Your task to perform on an android device: Open the calendar and show me this week's events Image 0: 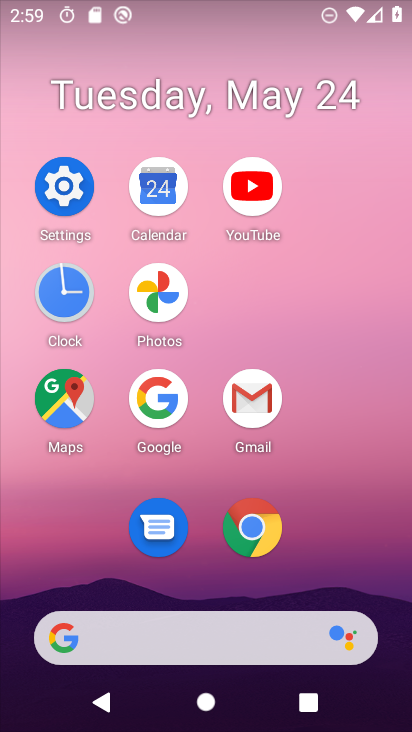
Step 0: click (158, 198)
Your task to perform on an android device: Open the calendar and show me this week's events Image 1: 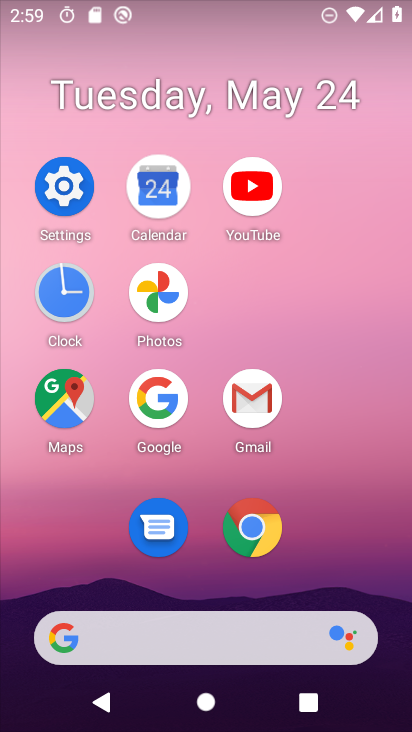
Step 1: click (157, 187)
Your task to perform on an android device: Open the calendar and show me this week's events Image 2: 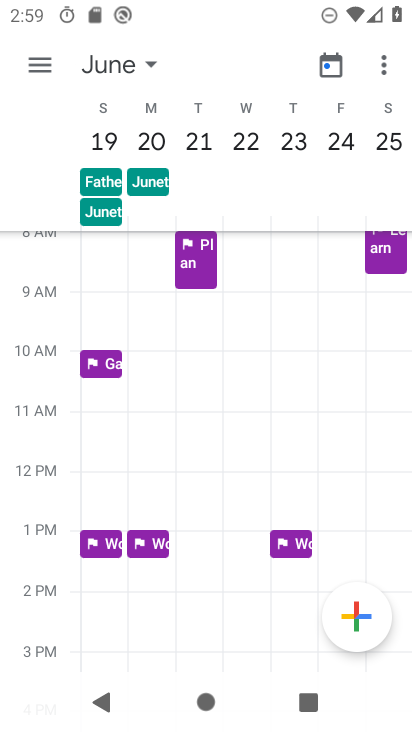
Step 2: click (120, 64)
Your task to perform on an android device: Open the calendar and show me this week's events Image 3: 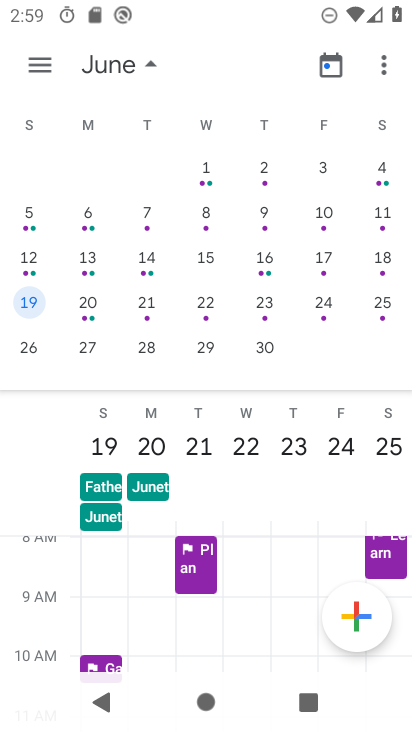
Step 3: drag from (43, 260) to (409, 182)
Your task to perform on an android device: Open the calendar and show me this week's events Image 4: 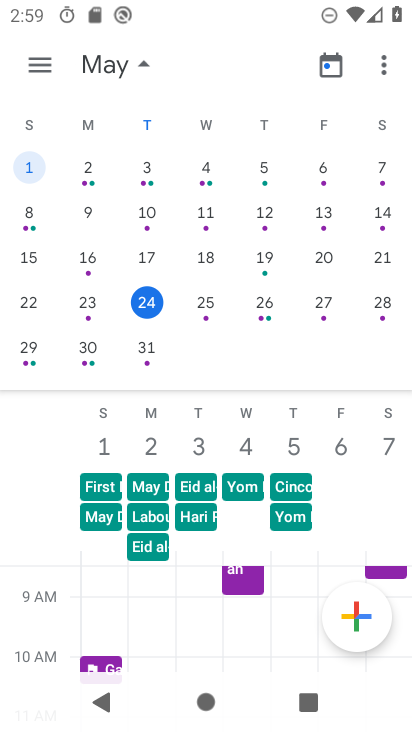
Step 4: click (55, 66)
Your task to perform on an android device: Open the calendar and show me this week's events Image 5: 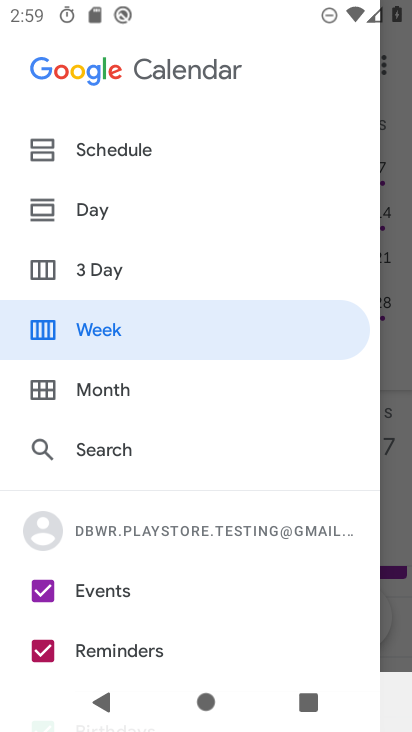
Step 5: click (130, 326)
Your task to perform on an android device: Open the calendar and show me this week's events Image 6: 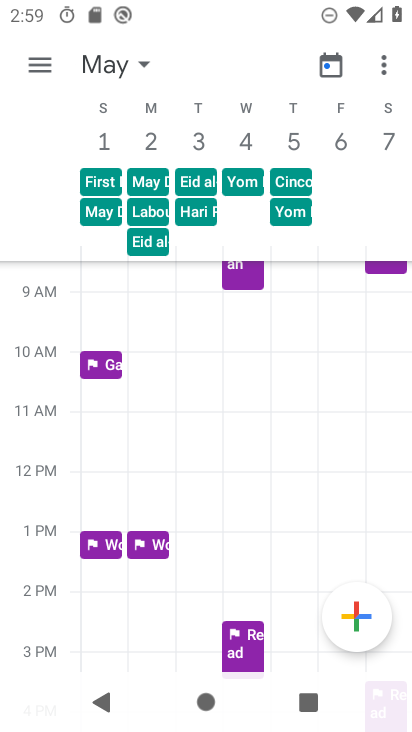
Step 6: task complete